Your task to perform on an android device: change text size in settings app Image 0: 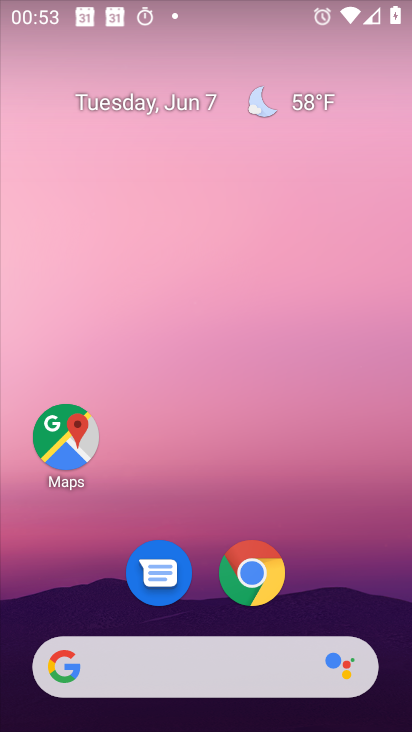
Step 0: press home button
Your task to perform on an android device: change text size in settings app Image 1: 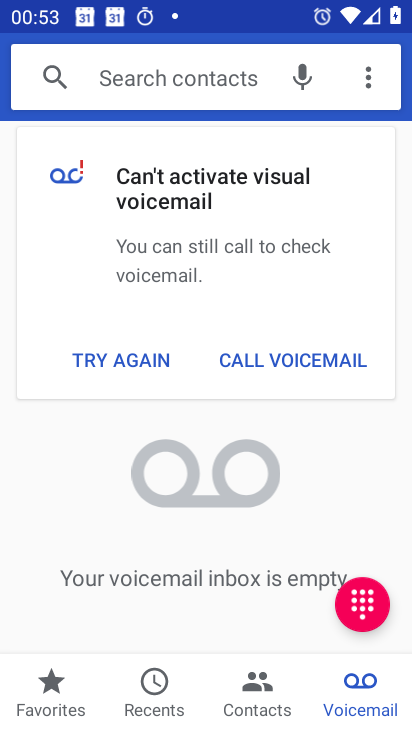
Step 1: click (359, 118)
Your task to perform on an android device: change text size in settings app Image 2: 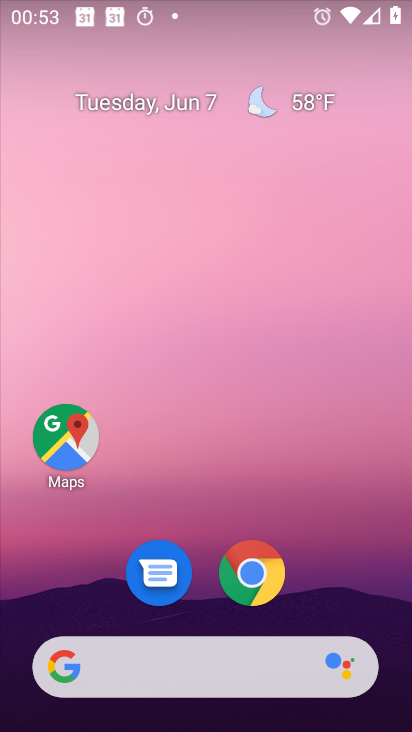
Step 2: drag from (364, 563) to (321, 15)
Your task to perform on an android device: change text size in settings app Image 3: 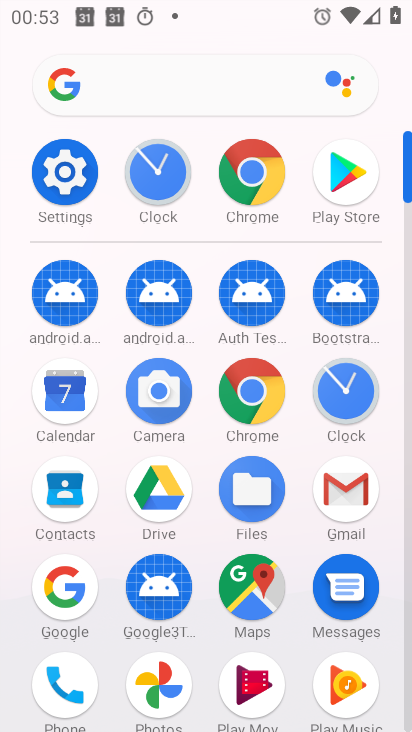
Step 3: click (35, 185)
Your task to perform on an android device: change text size in settings app Image 4: 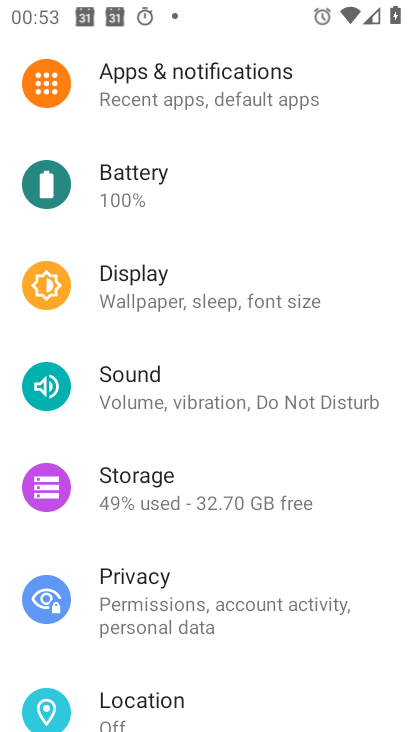
Step 4: click (156, 312)
Your task to perform on an android device: change text size in settings app Image 5: 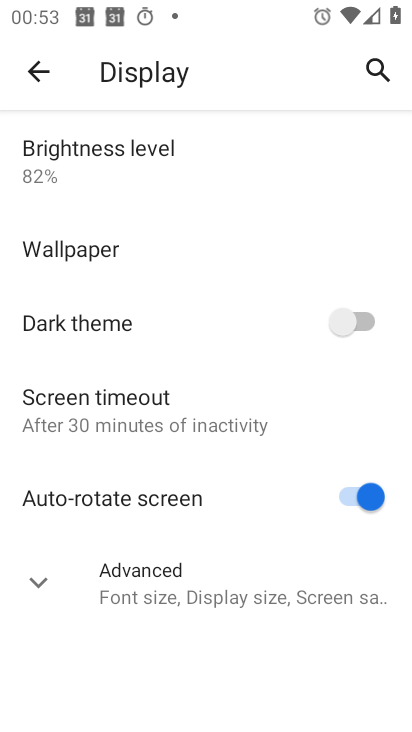
Step 5: click (116, 570)
Your task to perform on an android device: change text size in settings app Image 6: 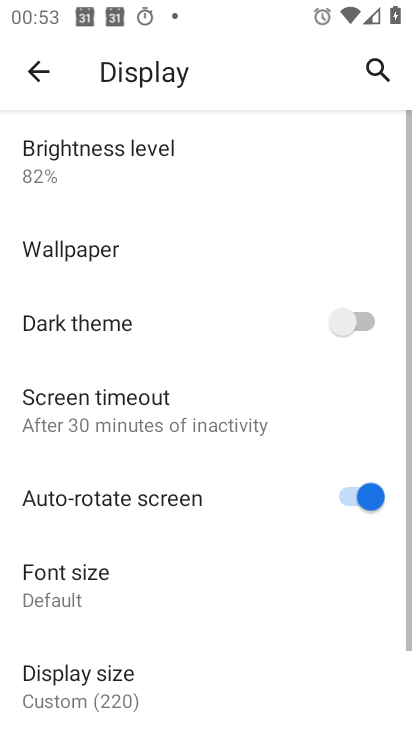
Step 6: click (116, 570)
Your task to perform on an android device: change text size in settings app Image 7: 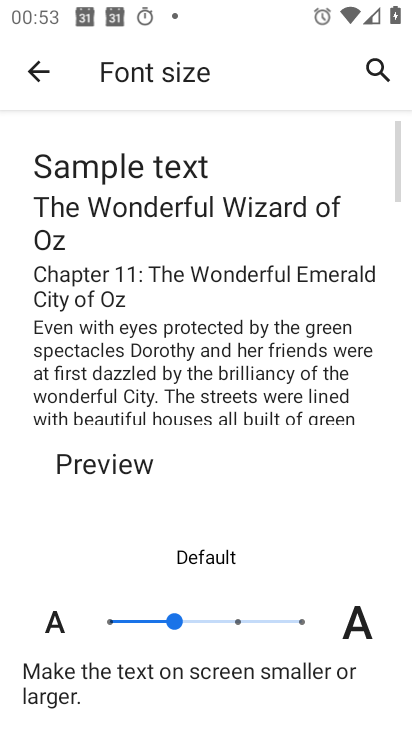
Step 7: click (340, 631)
Your task to perform on an android device: change text size in settings app Image 8: 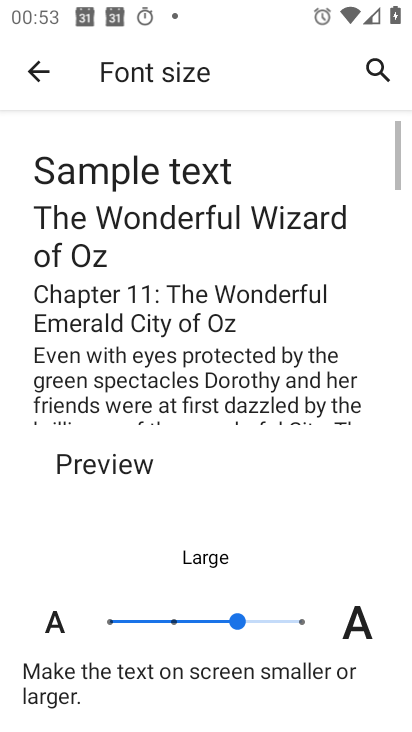
Step 8: task complete